Your task to perform on an android device: open device folders in google photos Image 0: 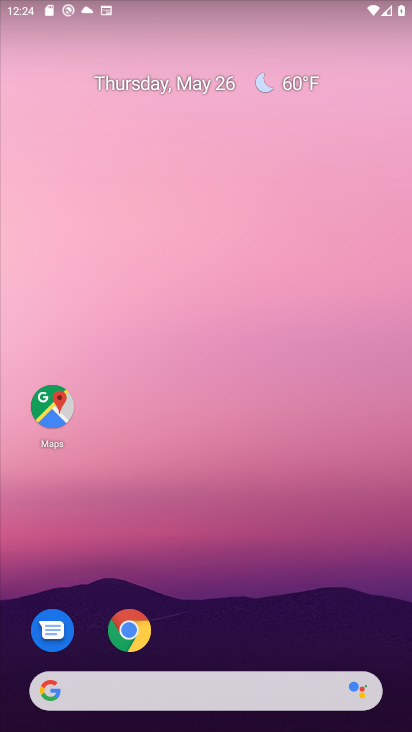
Step 0: drag from (322, 619) to (301, 109)
Your task to perform on an android device: open device folders in google photos Image 1: 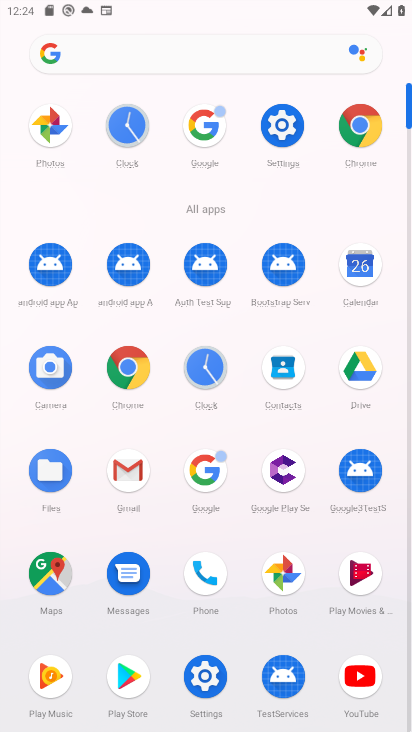
Step 1: click (39, 140)
Your task to perform on an android device: open device folders in google photos Image 2: 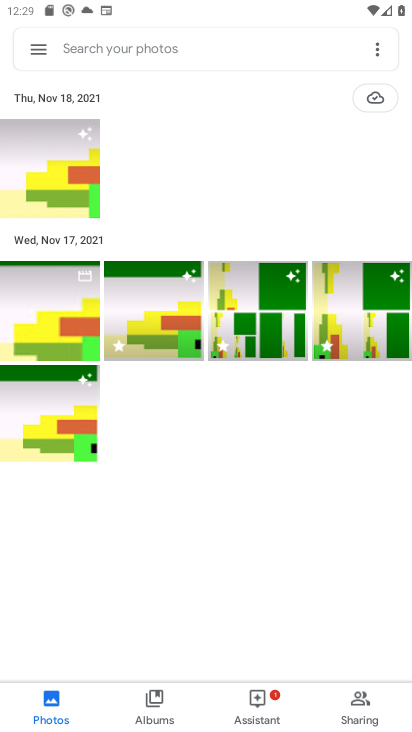
Step 2: click (34, 62)
Your task to perform on an android device: open device folders in google photos Image 3: 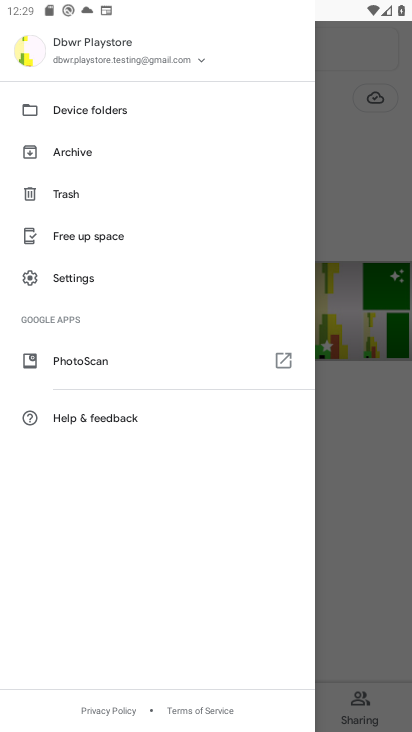
Step 3: click (104, 108)
Your task to perform on an android device: open device folders in google photos Image 4: 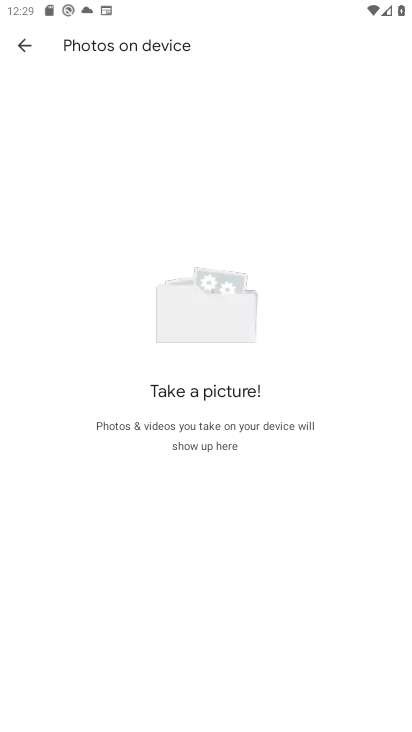
Step 4: task complete